Your task to perform on an android device: turn off sleep mode Image 0: 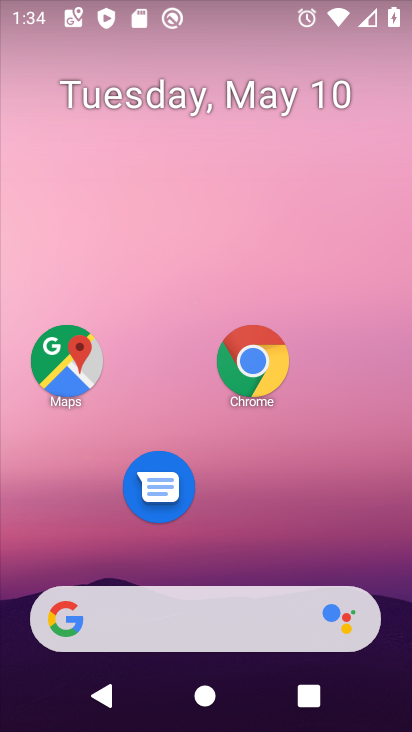
Step 0: drag from (306, 538) to (319, 148)
Your task to perform on an android device: turn off sleep mode Image 1: 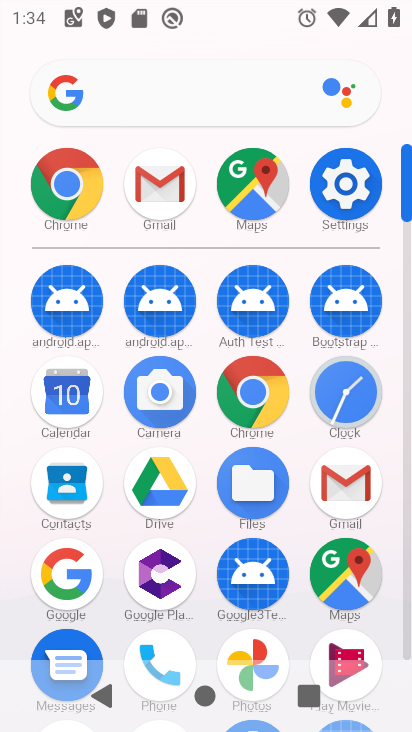
Step 1: click (331, 210)
Your task to perform on an android device: turn off sleep mode Image 2: 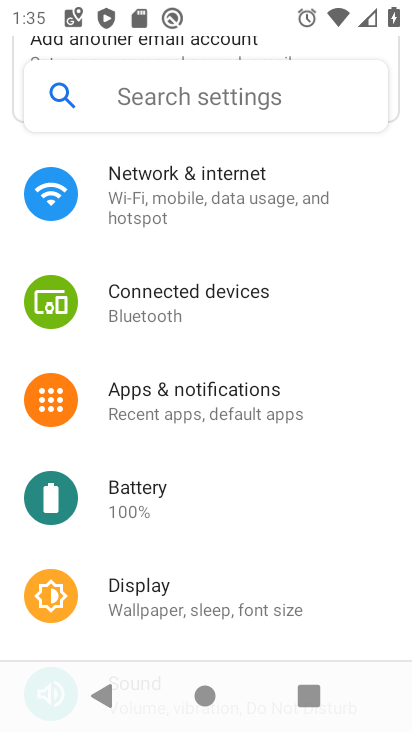
Step 2: click (251, 601)
Your task to perform on an android device: turn off sleep mode Image 3: 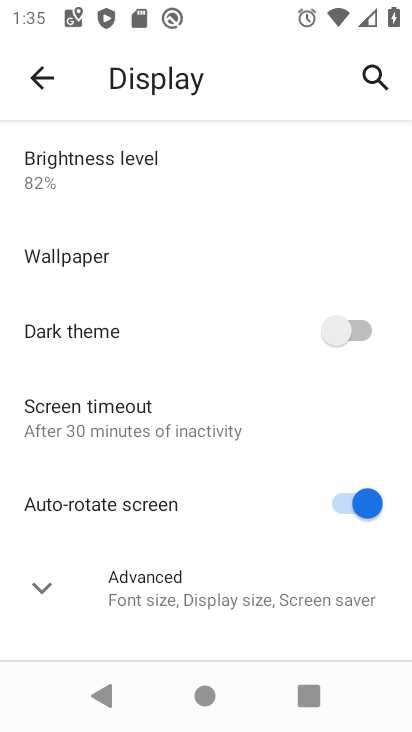
Step 3: click (256, 577)
Your task to perform on an android device: turn off sleep mode Image 4: 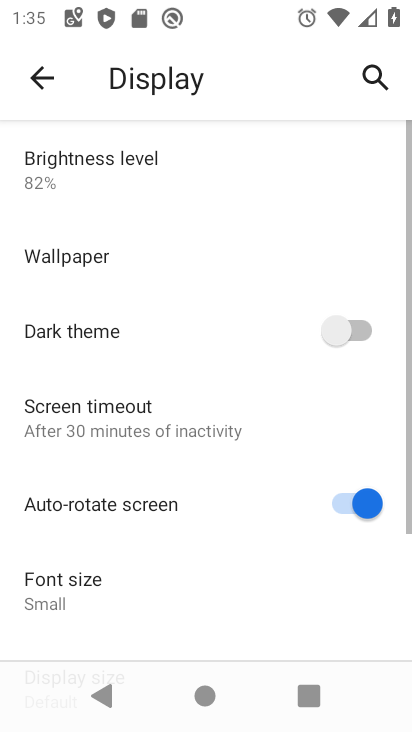
Step 4: drag from (256, 577) to (191, 151)
Your task to perform on an android device: turn off sleep mode Image 5: 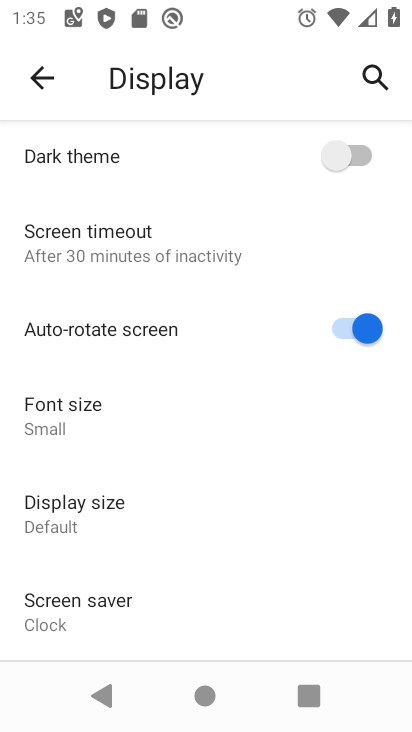
Step 5: drag from (209, 530) to (129, 249)
Your task to perform on an android device: turn off sleep mode Image 6: 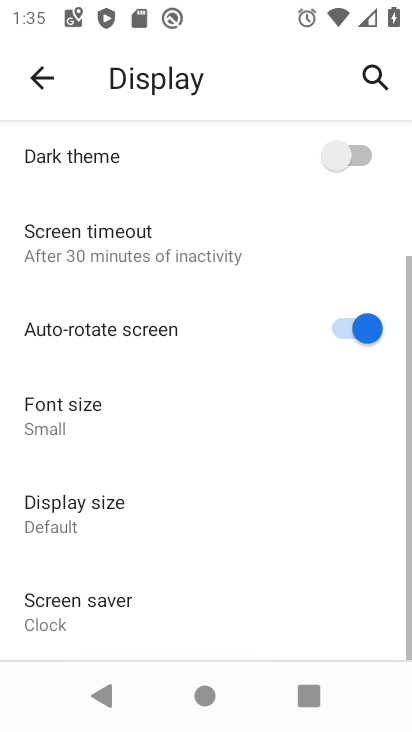
Step 6: drag from (129, 249) to (156, 644)
Your task to perform on an android device: turn off sleep mode Image 7: 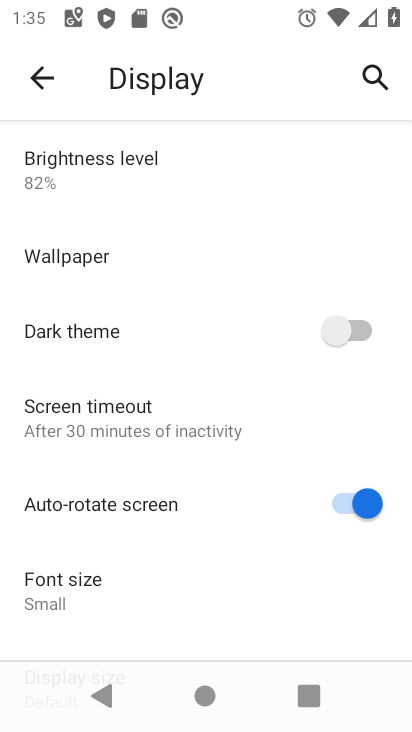
Step 7: drag from (152, 335) to (214, 472)
Your task to perform on an android device: turn off sleep mode Image 8: 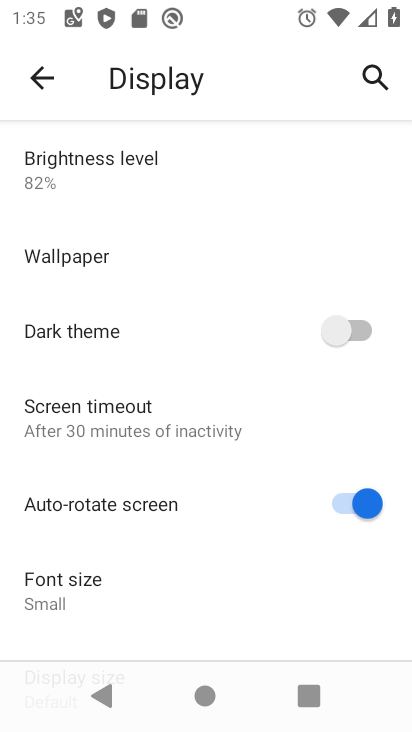
Step 8: click (46, 101)
Your task to perform on an android device: turn off sleep mode Image 9: 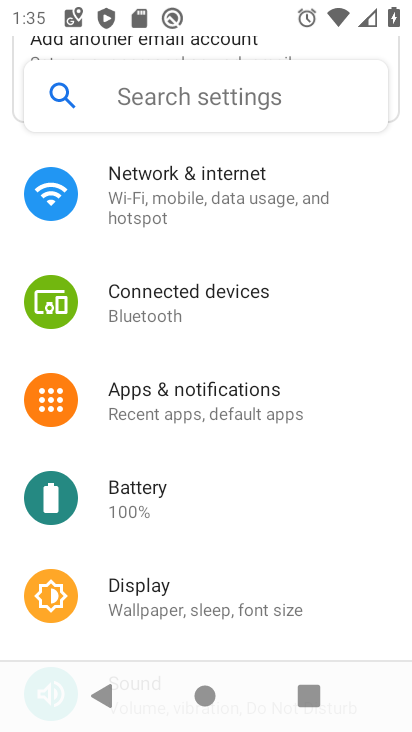
Step 9: click (186, 571)
Your task to perform on an android device: turn off sleep mode Image 10: 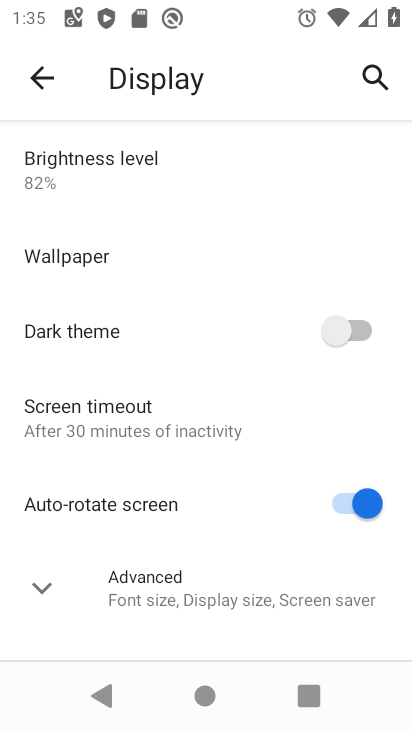
Step 10: click (186, 424)
Your task to perform on an android device: turn off sleep mode Image 11: 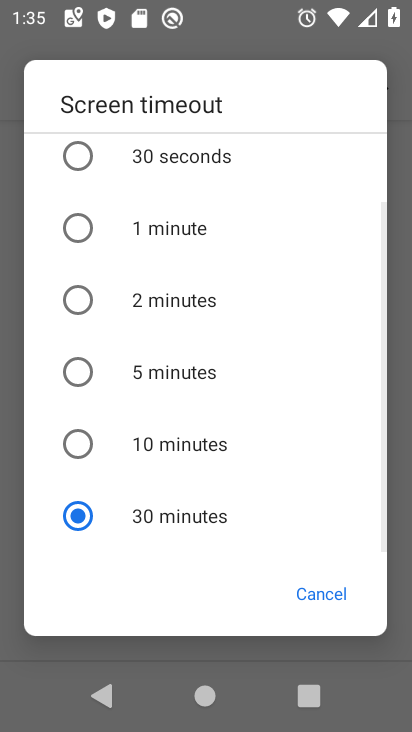
Step 11: click (189, 177)
Your task to perform on an android device: turn off sleep mode Image 12: 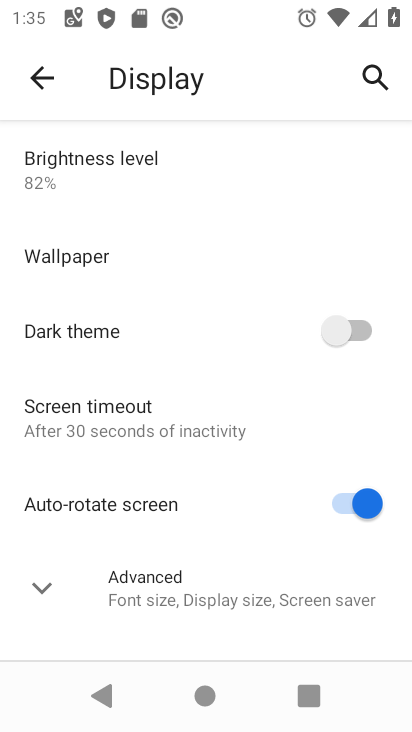
Step 12: task complete